Your task to perform on an android device: star an email in the gmail app Image 0: 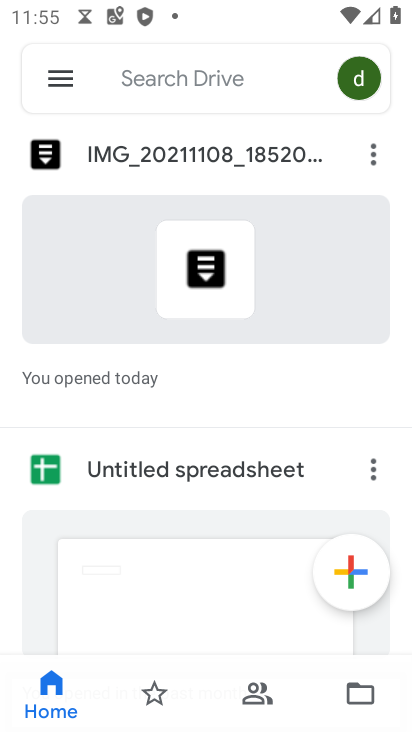
Step 0: press home button
Your task to perform on an android device: star an email in the gmail app Image 1: 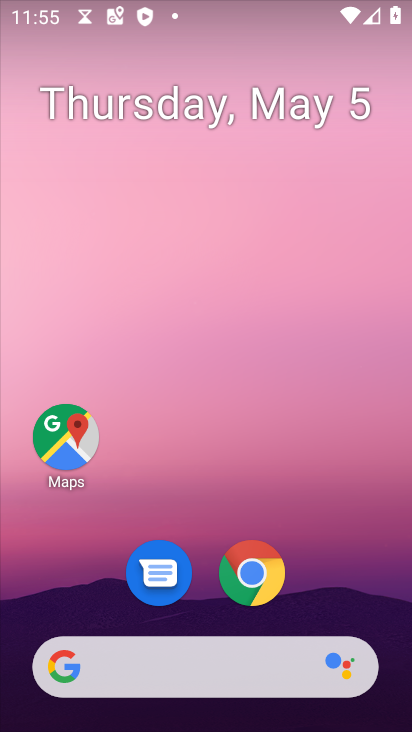
Step 1: drag from (362, 606) to (361, 330)
Your task to perform on an android device: star an email in the gmail app Image 2: 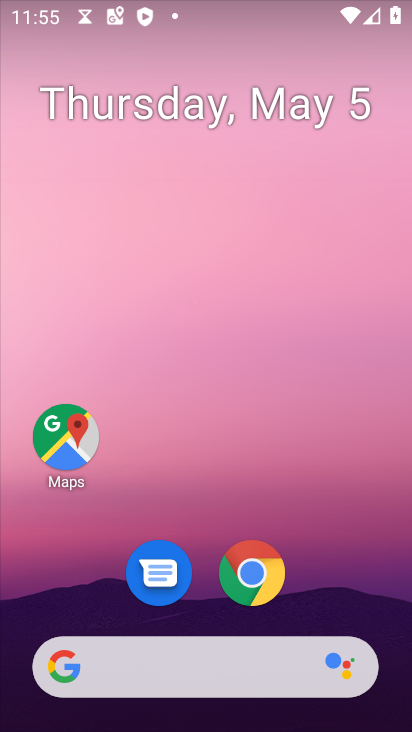
Step 2: drag from (324, 573) to (275, 243)
Your task to perform on an android device: star an email in the gmail app Image 3: 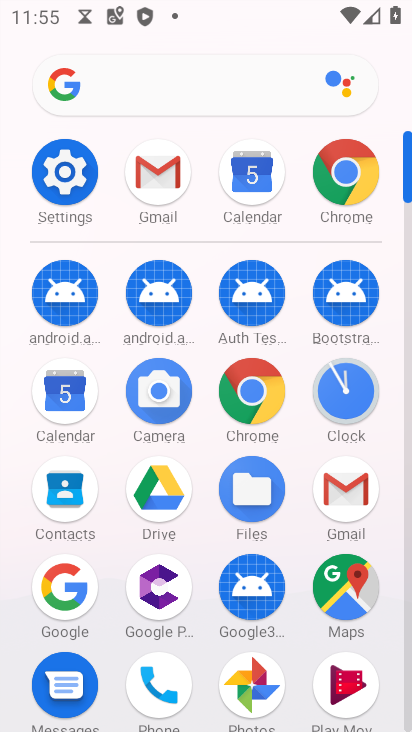
Step 3: click (155, 176)
Your task to perform on an android device: star an email in the gmail app Image 4: 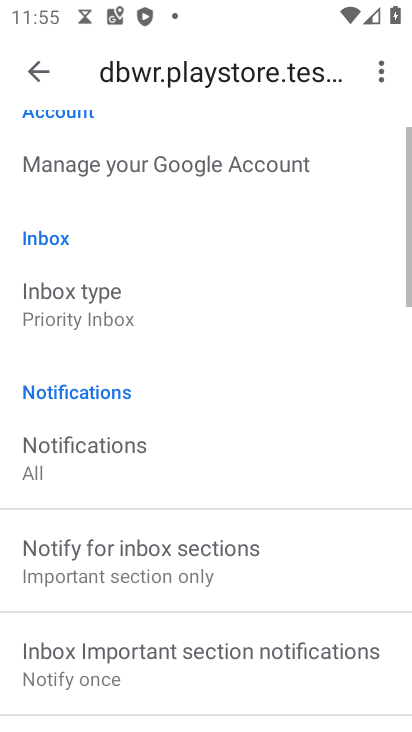
Step 4: click (43, 67)
Your task to perform on an android device: star an email in the gmail app Image 5: 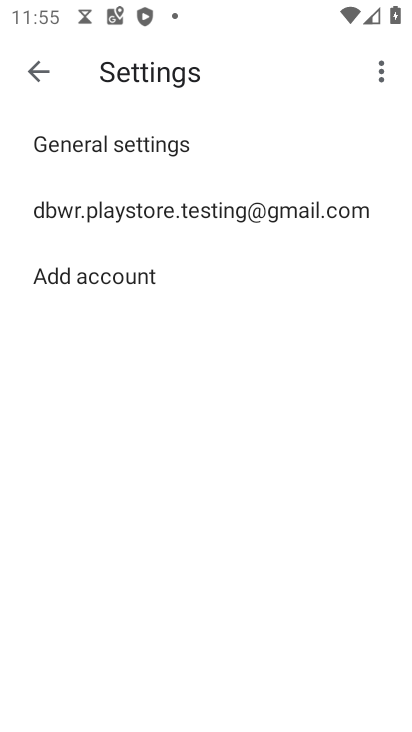
Step 5: click (30, 70)
Your task to perform on an android device: star an email in the gmail app Image 6: 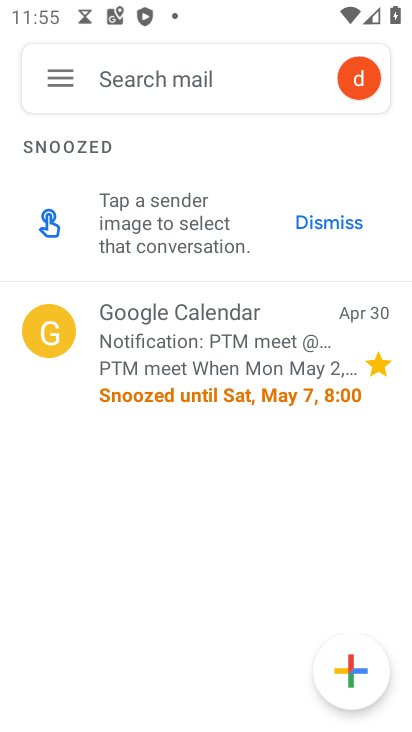
Step 6: click (49, 73)
Your task to perform on an android device: star an email in the gmail app Image 7: 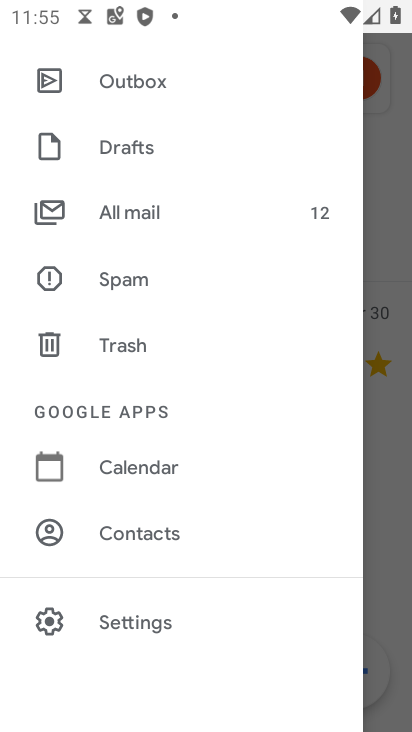
Step 7: drag from (198, 161) to (249, 600)
Your task to perform on an android device: star an email in the gmail app Image 8: 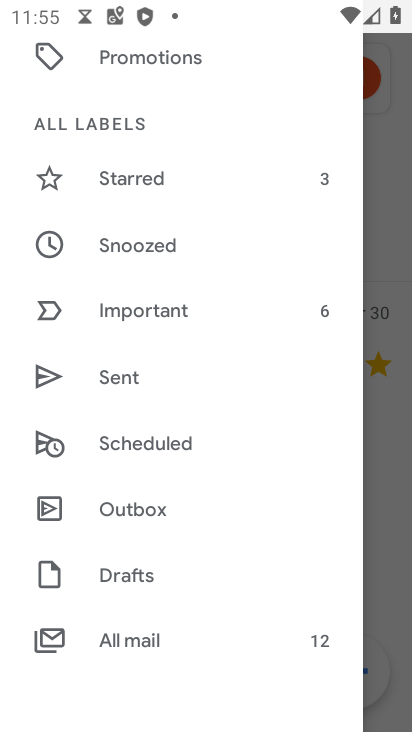
Step 8: click (165, 180)
Your task to perform on an android device: star an email in the gmail app Image 9: 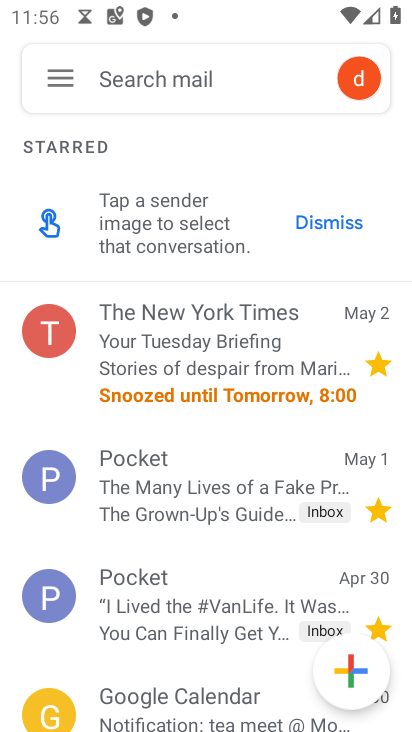
Step 9: task complete